Your task to perform on an android device: turn notification dots on Image 0: 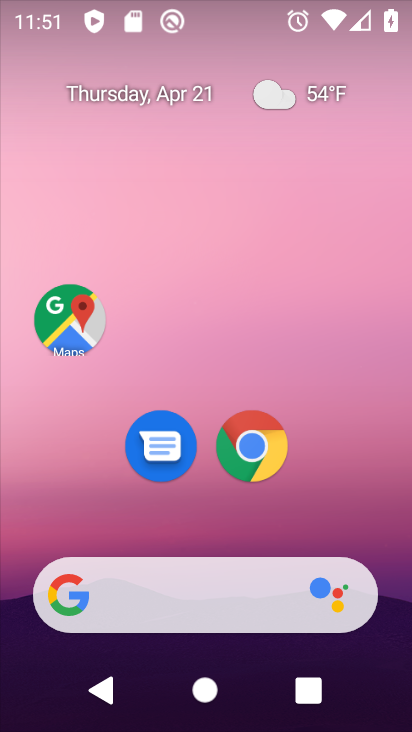
Step 0: drag from (392, 541) to (315, 275)
Your task to perform on an android device: turn notification dots on Image 1: 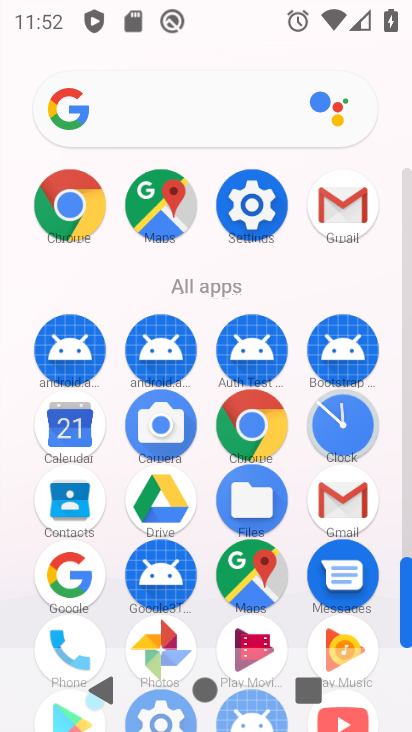
Step 1: click (268, 219)
Your task to perform on an android device: turn notification dots on Image 2: 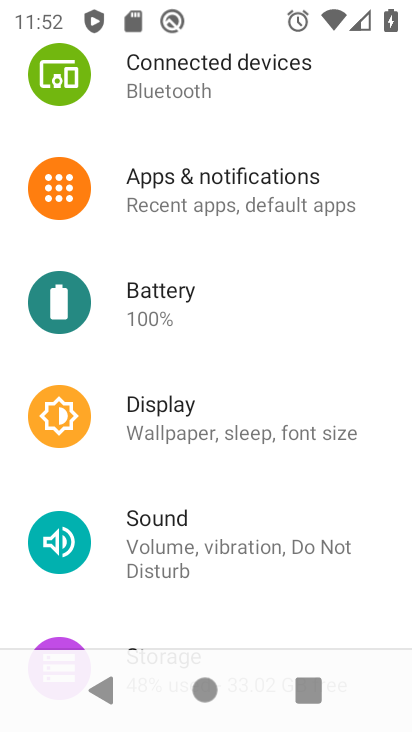
Step 2: click (276, 178)
Your task to perform on an android device: turn notification dots on Image 3: 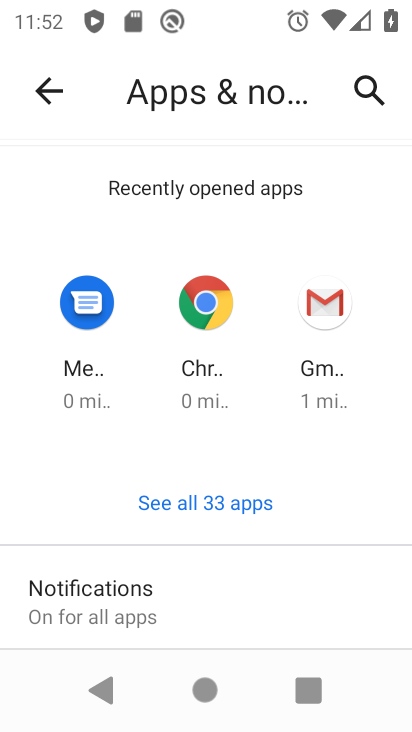
Step 3: drag from (307, 414) to (228, 257)
Your task to perform on an android device: turn notification dots on Image 4: 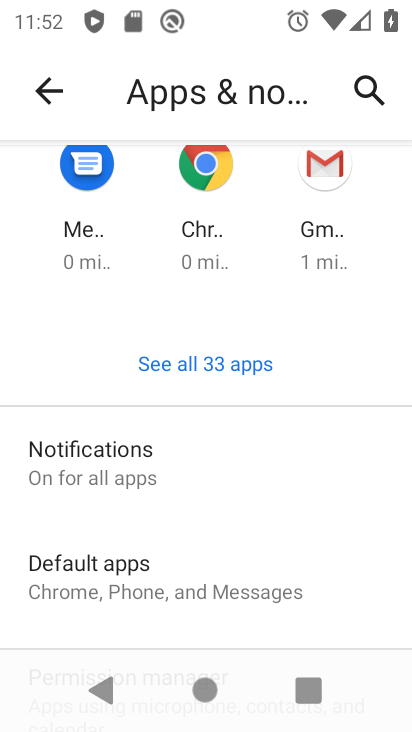
Step 4: click (211, 476)
Your task to perform on an android device: turn notification dots on Image 5: 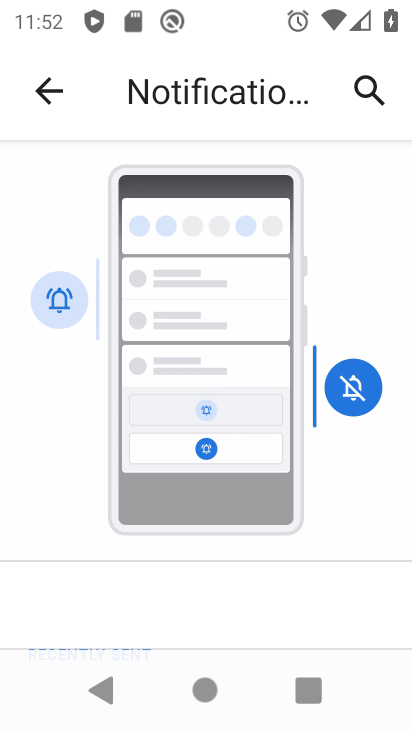
Step 5: drag from (276, 611) to (190, 261)
Your task to perform on an android device: turn notification dots on Image 6: 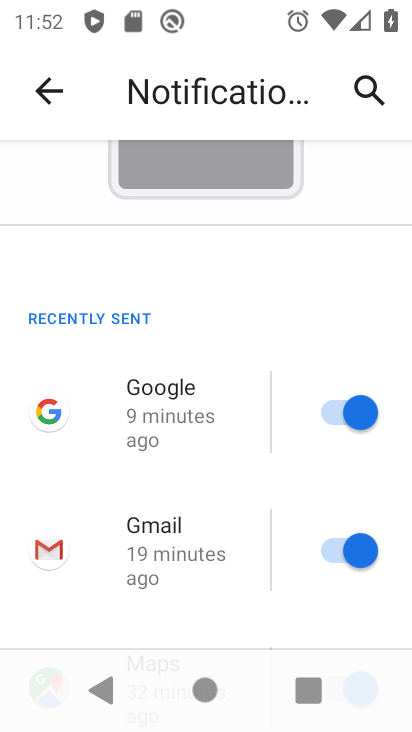
Step 6: drag from (253, 469) to (208, 103)
Your task to perform on an android device: turn notification dots on Image 7: 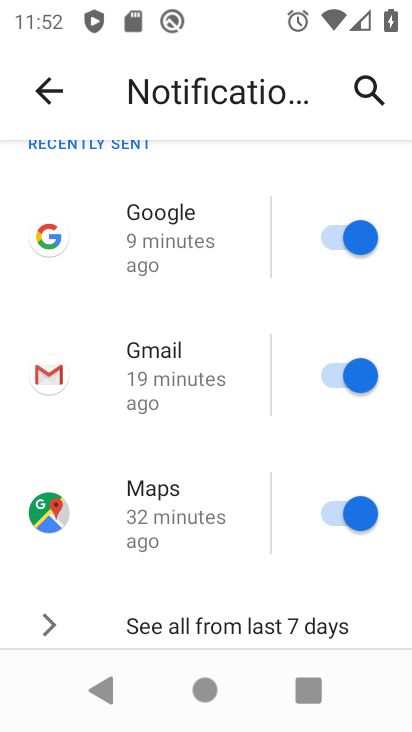
Step 7: drag from (255, 465) to (211, 194)
Your task to perform on an android device: turn notification dots on Image 8: 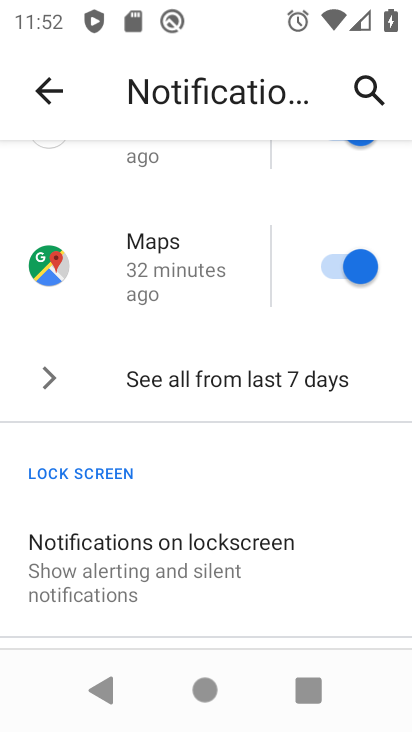
Step 8: drag from (299, 526) to (244, 263)
Your task to perform on an android device: turn notification dots on Image 9: 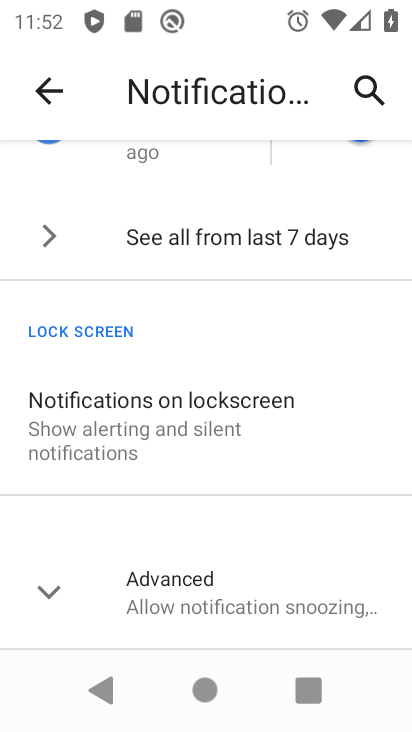
Step 9: click (311, 614)
Your task to perform on an android device: turn notification dots on Image 10: 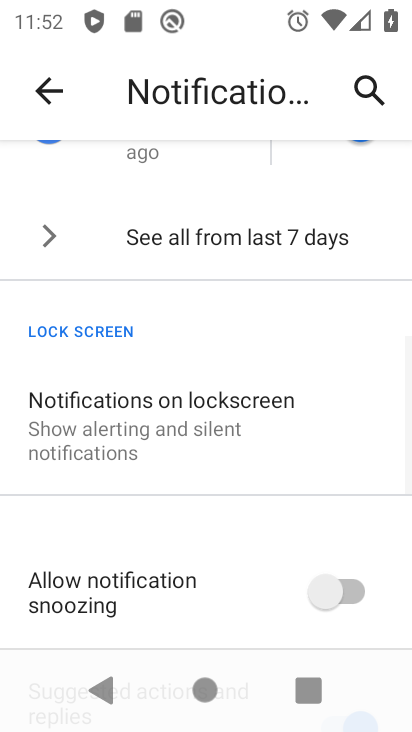
Step 10: task complete